Your task to perform on an android device: remove spam from my inbox in the gmail app Image 0: 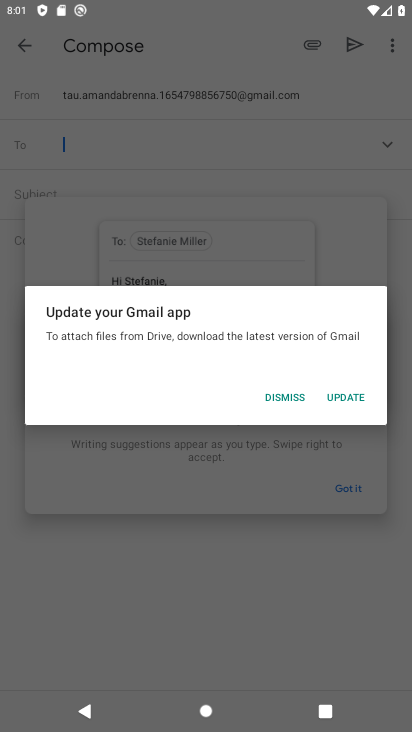
Step 0: press home button
Your task to perform on an android device: remove spam from my inbox in the gmail app Image 1: 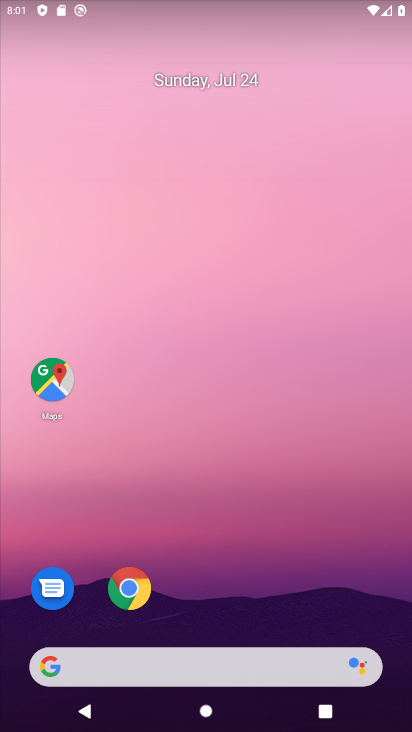
Step 1: drag from (243, 561) to (245, 34)
Your task to perform on an android device: remove spam from my inbox in the gmail app Image 2: 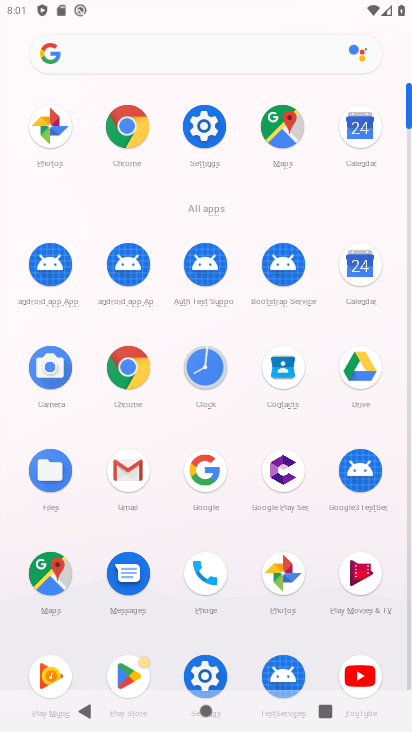
Step 2: click (118, 458)
Your task to perform on an android device: remove spam from my inbox in the gmail app Image 3: 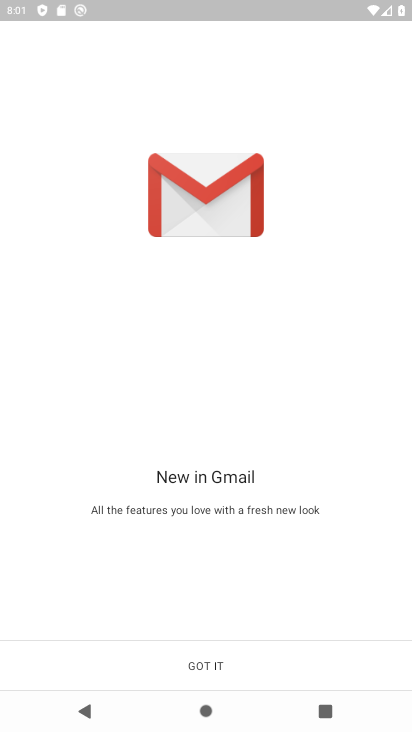
Step 3: click (216, 657)
Your task to perform on an android device: remove spam from my inbox in the gmail app Image 4: 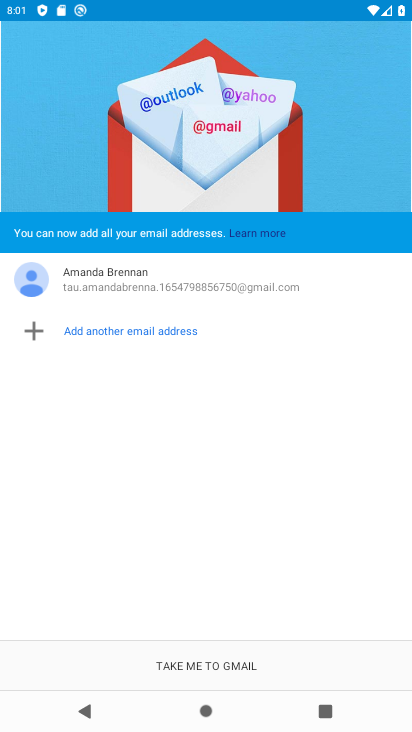
Step 4: click (216, 657)
Your task to perform on an android device: remove spam from my inbox in the gmail app Image 5: 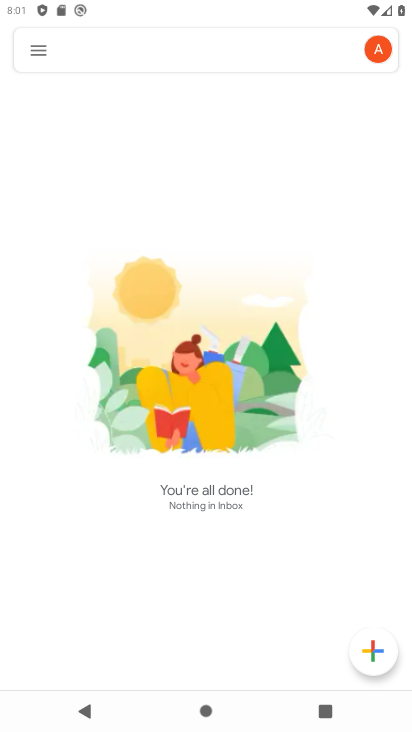
Step 5: click (32, 51)
Your task to perform on an android device: remove spam from my inbox in the gmail app Image 6: 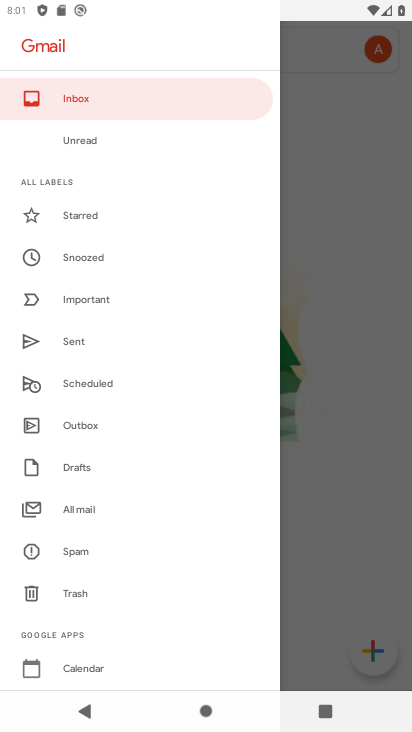
Step 6: click (78, 563)
Your task to perform on an android device: remove spam from my inbox in the gmail app Image 7: 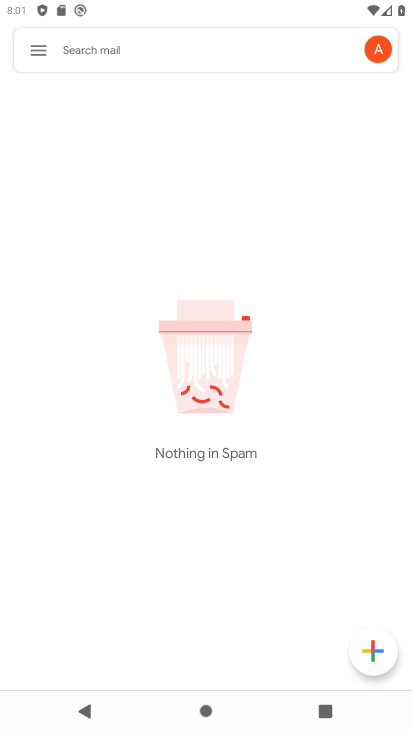
Step 7: task complete